Your task to perform on an android device: Clear the cart on amazon.com. Search for duracell triple a on amazon.com, select the first entry, and add it to the cart. Image 0: 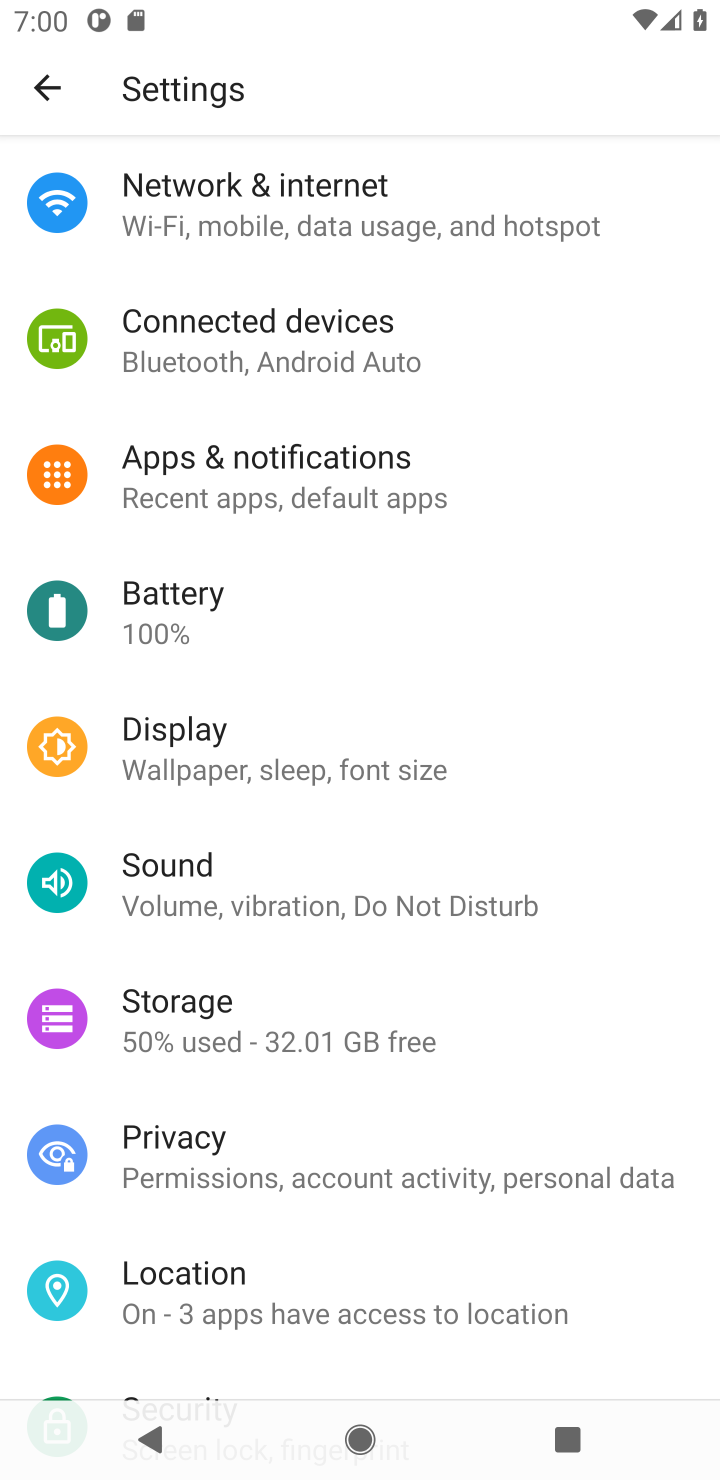
Step 0: press home button
Your task to perform on an android device: Clear the cart on amazon.com. Search for duracell triple a on amazon.com, select the first entry, and add it to the cart. Image 1: 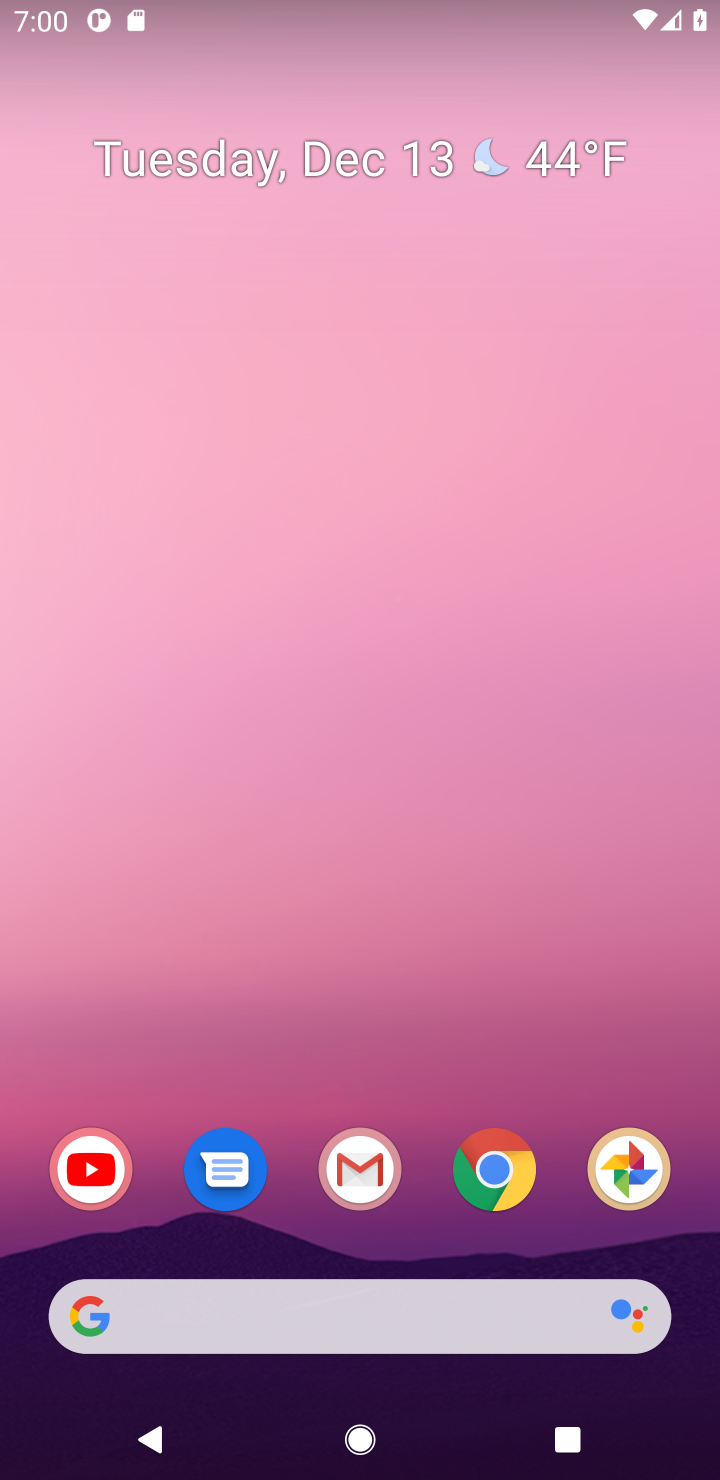
Step 1: click (479, 1186)
Your task to perform on an android device: Clear the cart on amazon.com. Search for duracell triple a on amazon.com, select the first entry, and add it to the cart. Image 2: 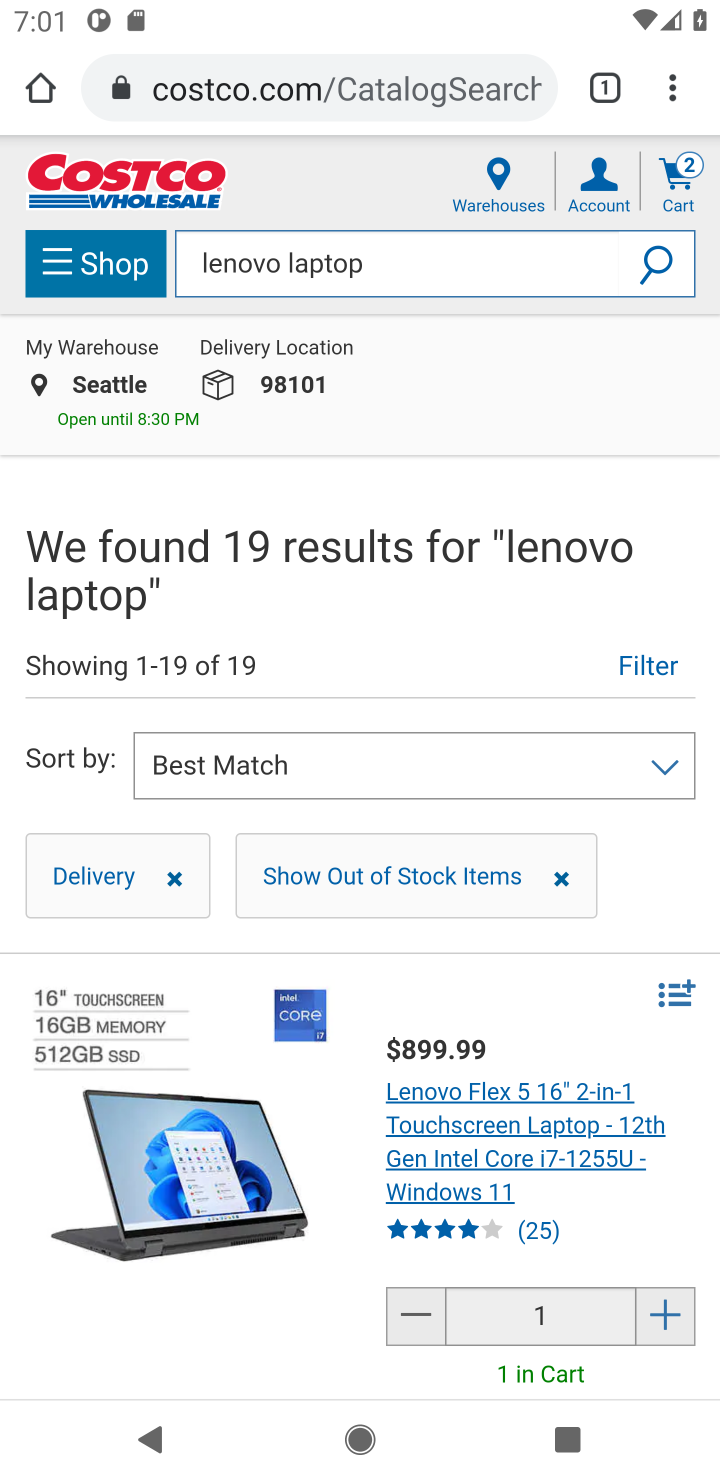
Step 2: click (360, 68)
Your task to perform on an android device: Clear the cart on amazon.com. Search for duracell triple a on amazon.com, select the first entry, and add it to the cart. Image 3: 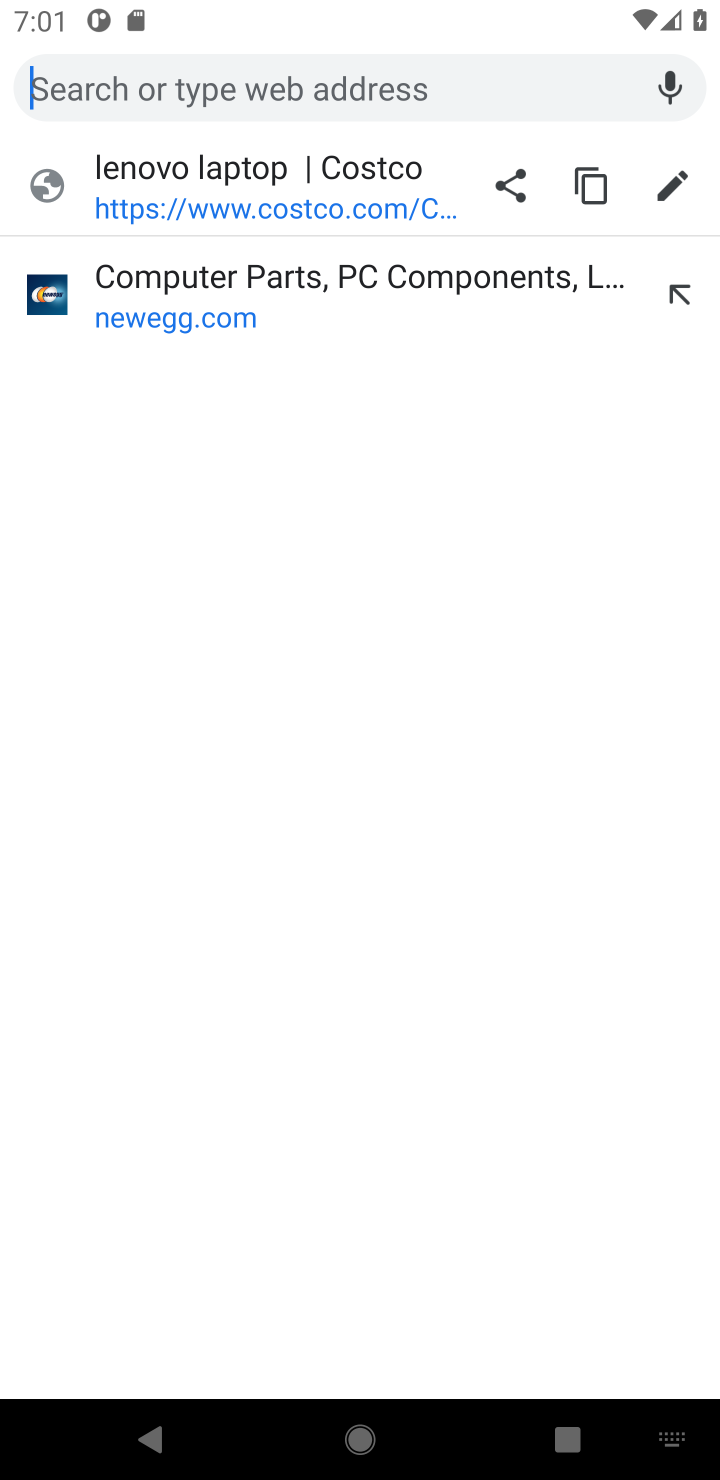
Step 3: type "amazon.com"
Your task to perform on an android device: Clear the cart on amazon.com. Search for duracell triple a on amazon.com, select the first entry, and add it to the cart. Image 4: 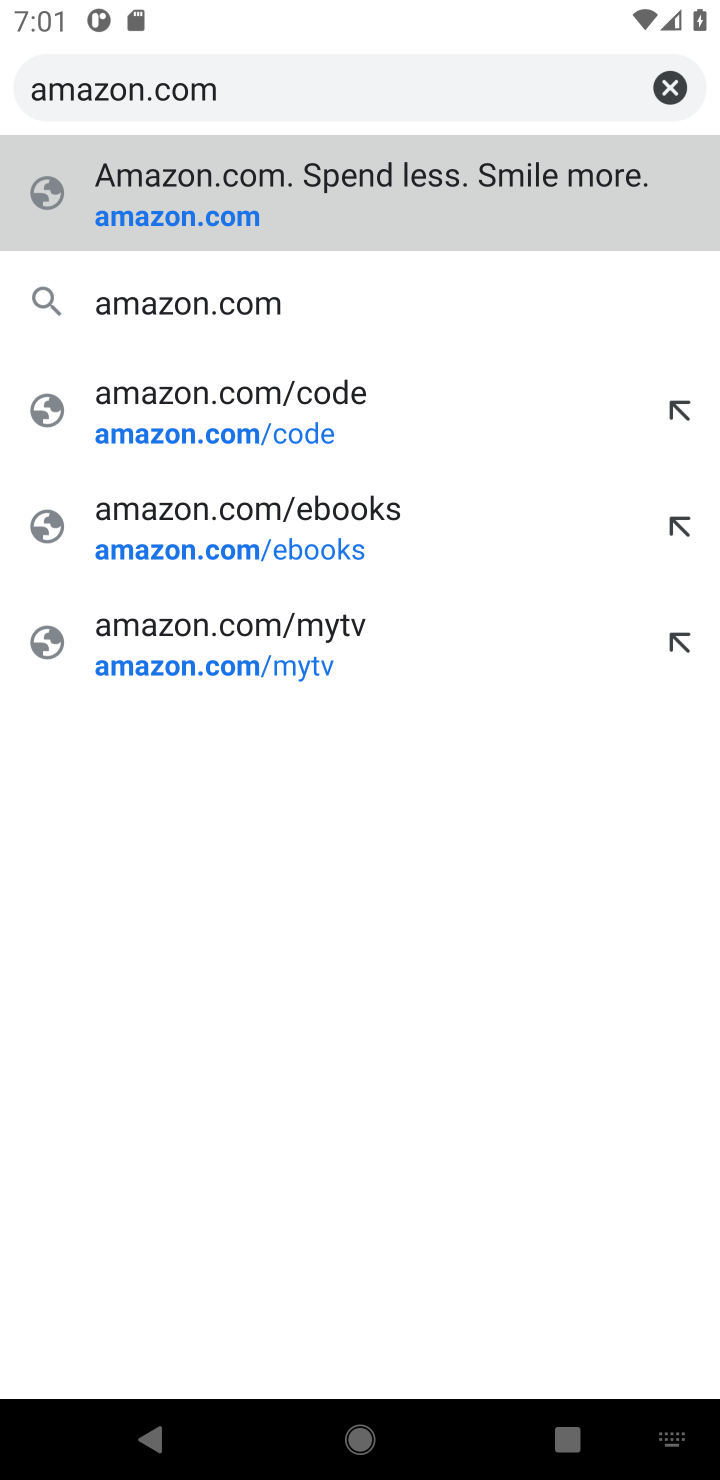
Step 4: click (250, 182)
Your task to perform on an android device: Clear the cart on amazon.com. Search for duracell triple a on amazon.com, select the first entry, and add it to the cart. Image 5: 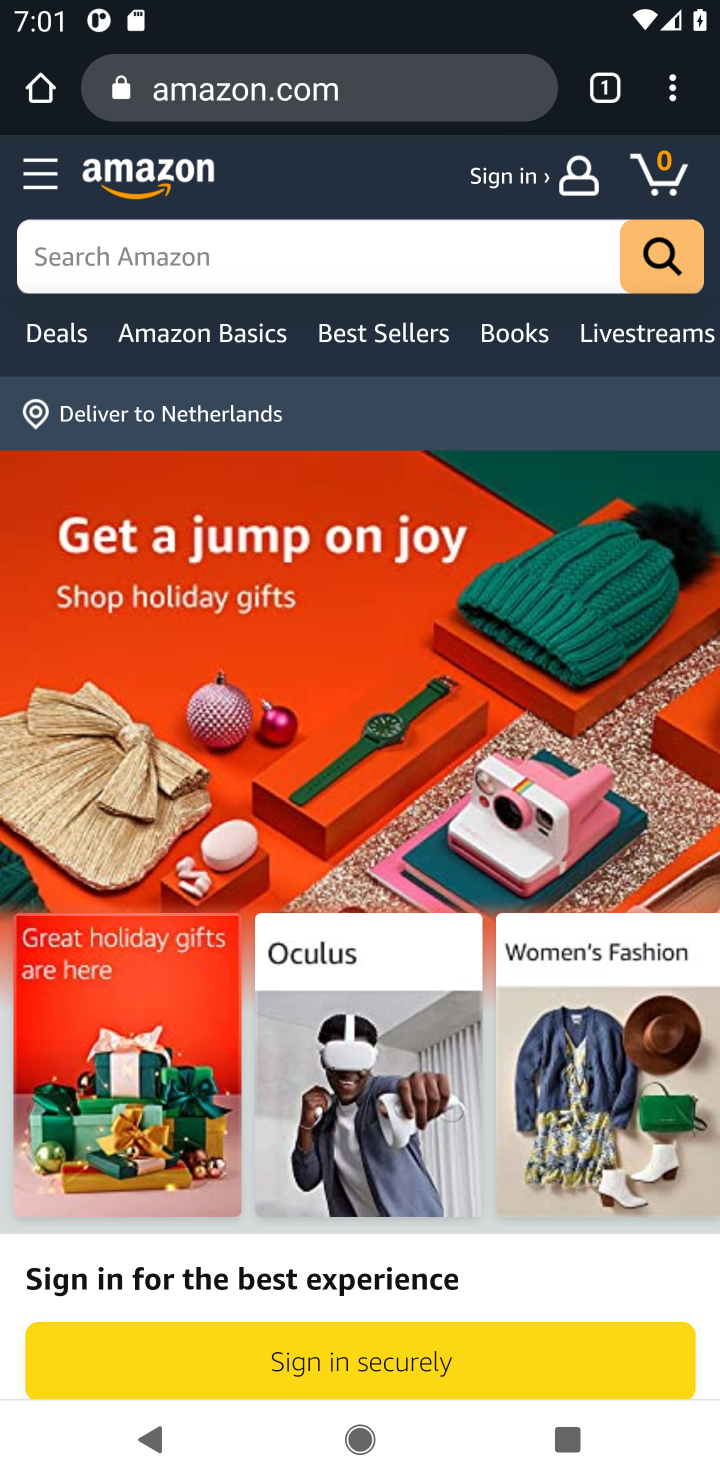
Step 5: click (287, 253)
Your task to perform on an android device: Clear the cart on amazon.com. Search for duracell triple a on amazon.com, select the first entry, and add it to the cart. Image 6: 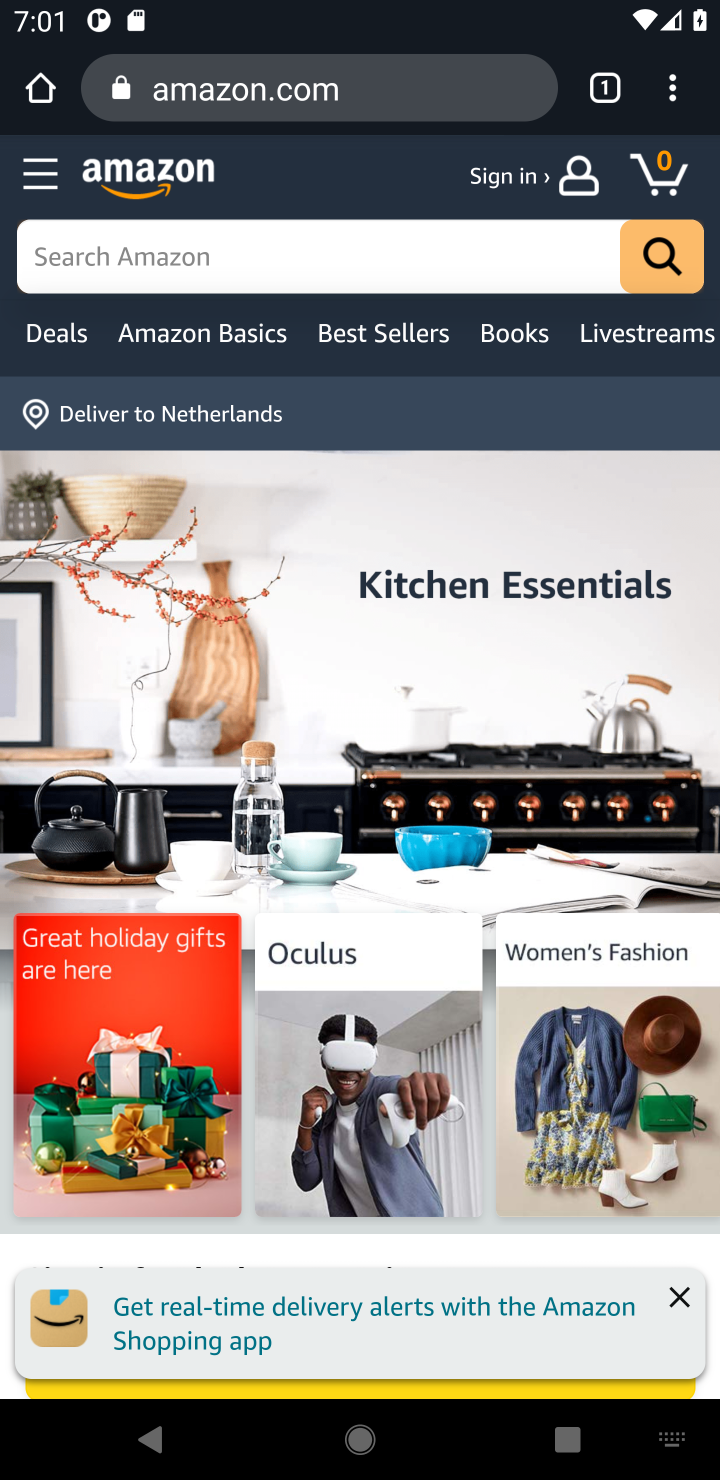
Step 6: type "duracell triple a"
Your task to perform on an android device: Clear the cart on amazon.com. Search for duracell triple a on amazon.com, select the first entry, and add it to the cart. Image 7: 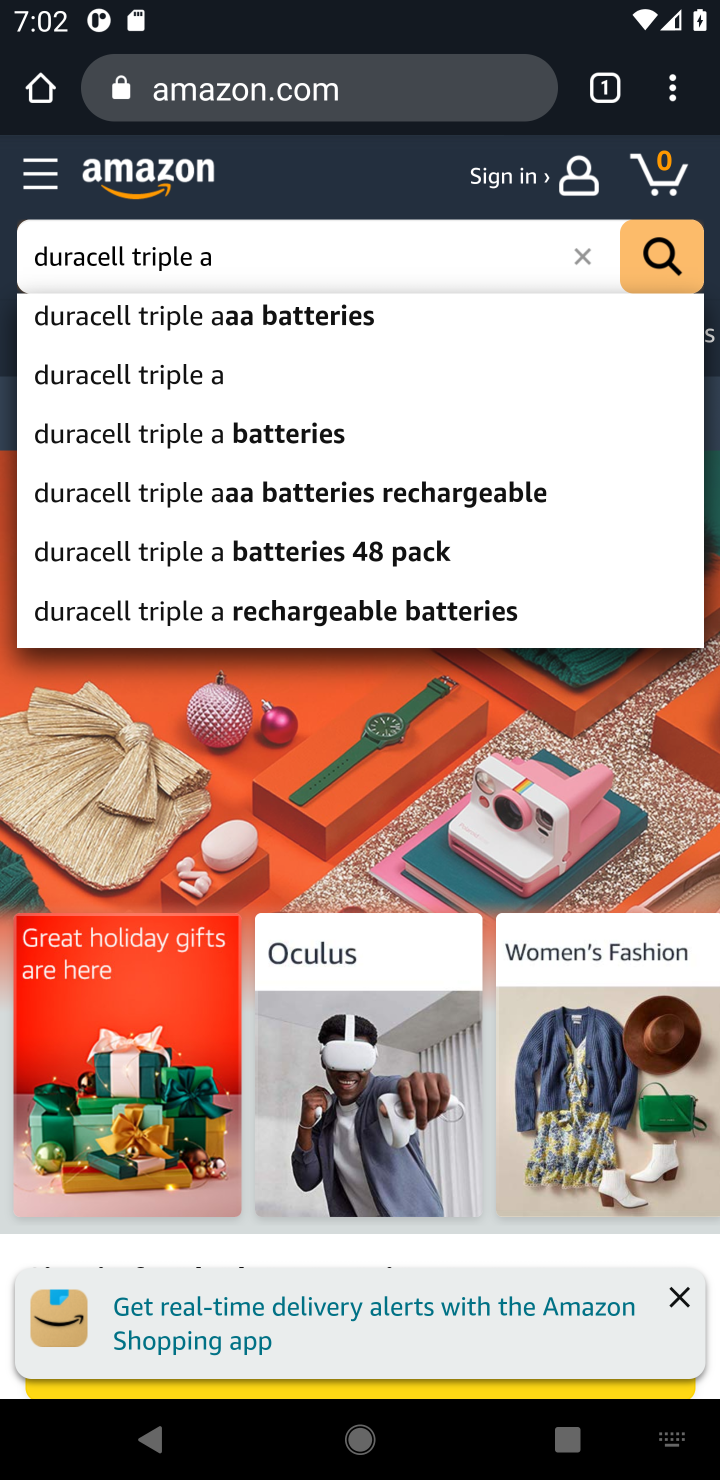
Step 7: click (265, 330)
Your task to perform on an android device: Clear the cart on amazon.com. Search for duracell triple a on amazon.com, select the first entry, and add it to the cart. Image 8: 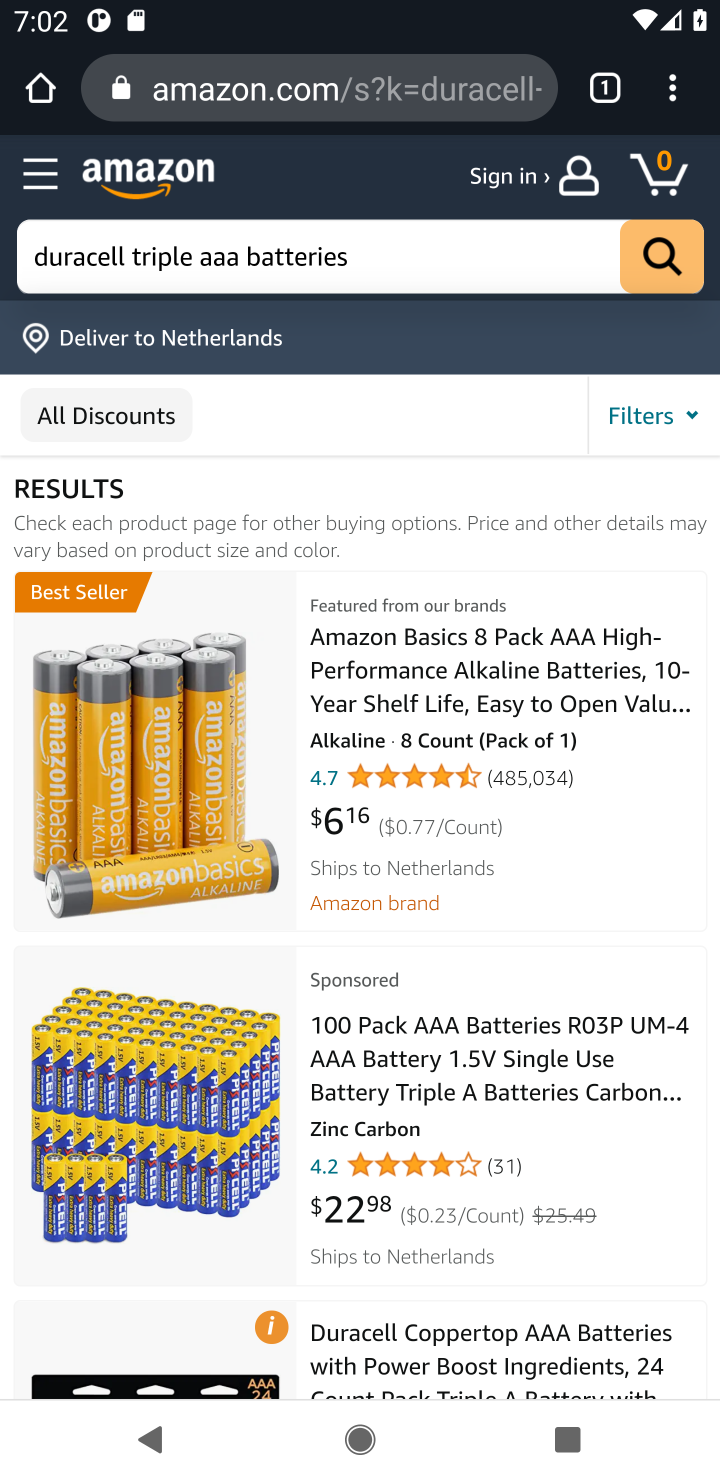
Step 8: click (254, 703)
Your task to perform on an android device: Clear the cart on amazon.com. Search for duracell triple a on amazon.com, select the first entry, and add it to the cart. Image 9: 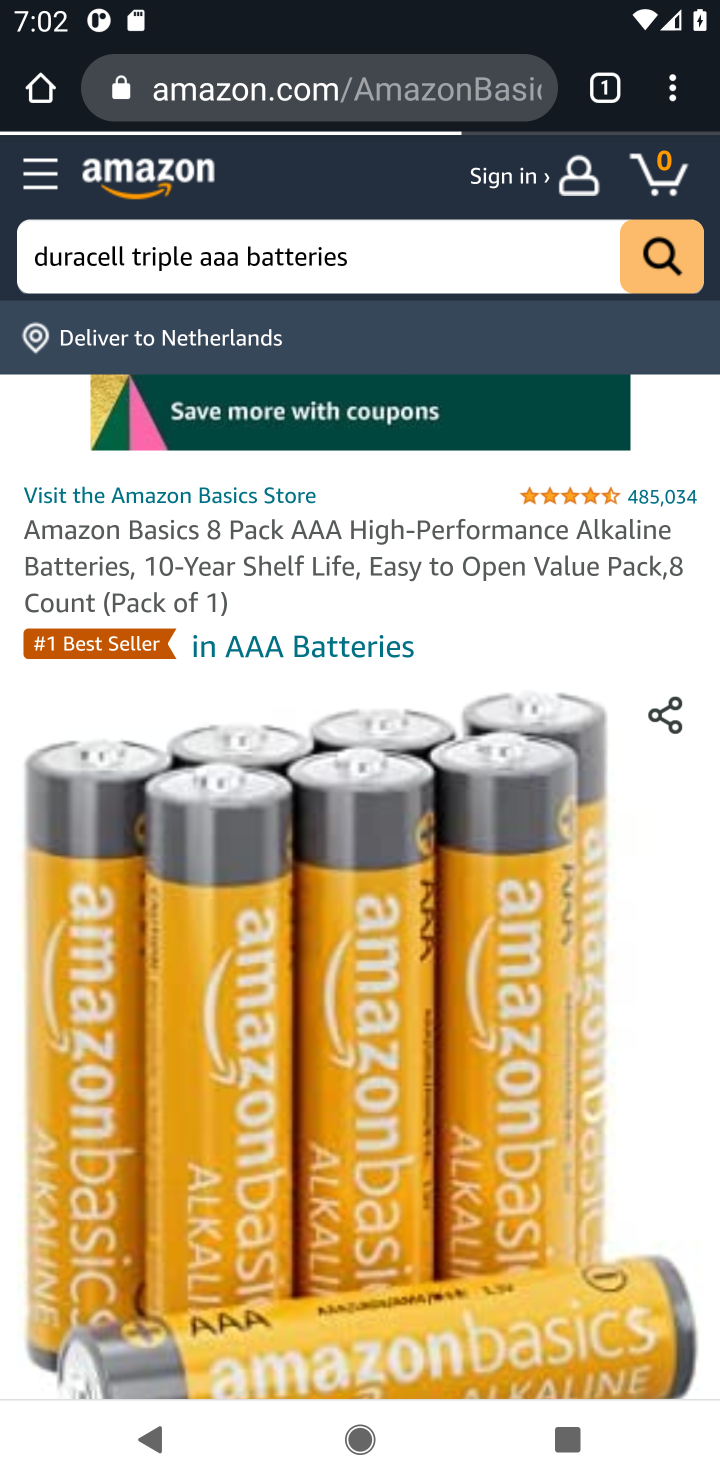
Step 9: drag from (496, 1124) to (479, 590)
Your task to perform on an android device: Clear the cart on amazon.com. Search for duracell triple a on amazon.com, select the first entry, and add it to the cart. Image 10: 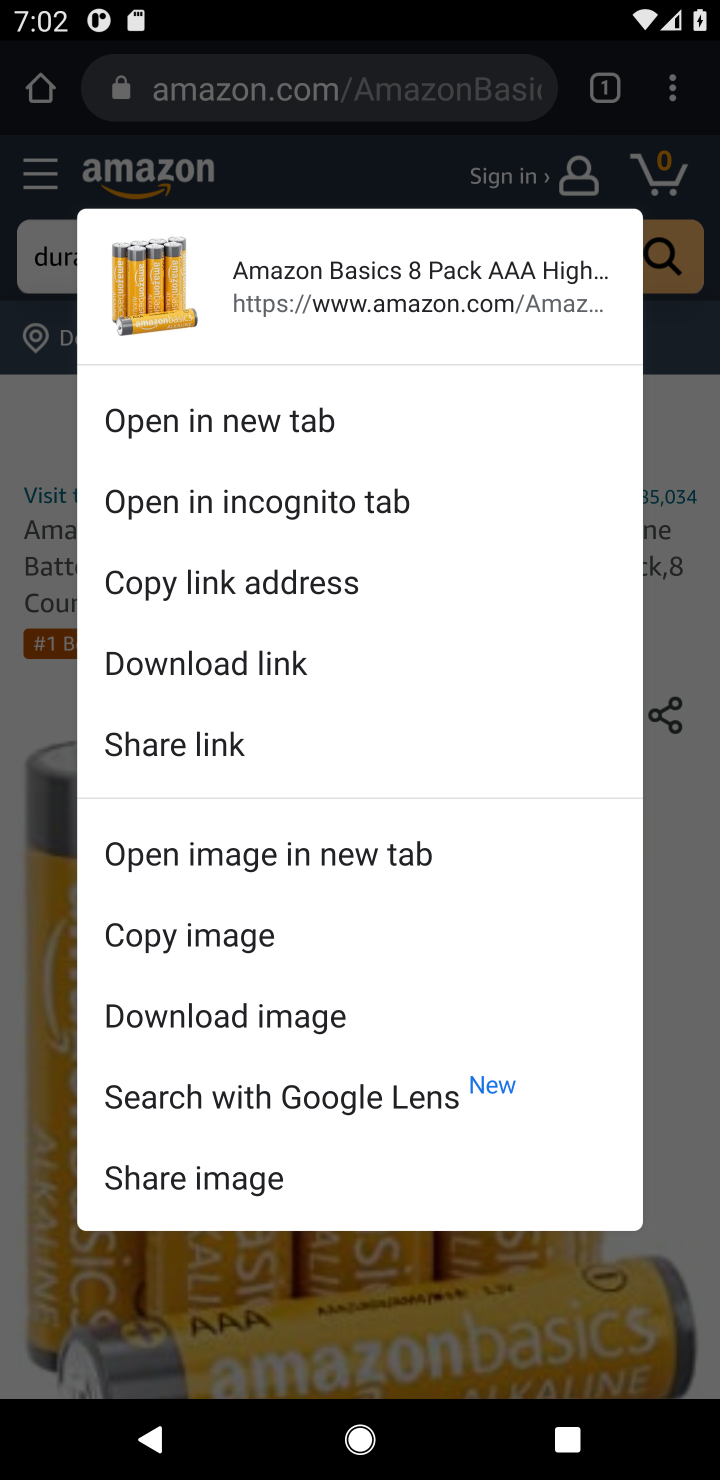
Step 10: click (594, 1367)
Your task to perform on an android device: Clear the cart on amazon.com. Search for duracell triple a on amazon.com, select the first entry, and add it to the cart. Image 11: 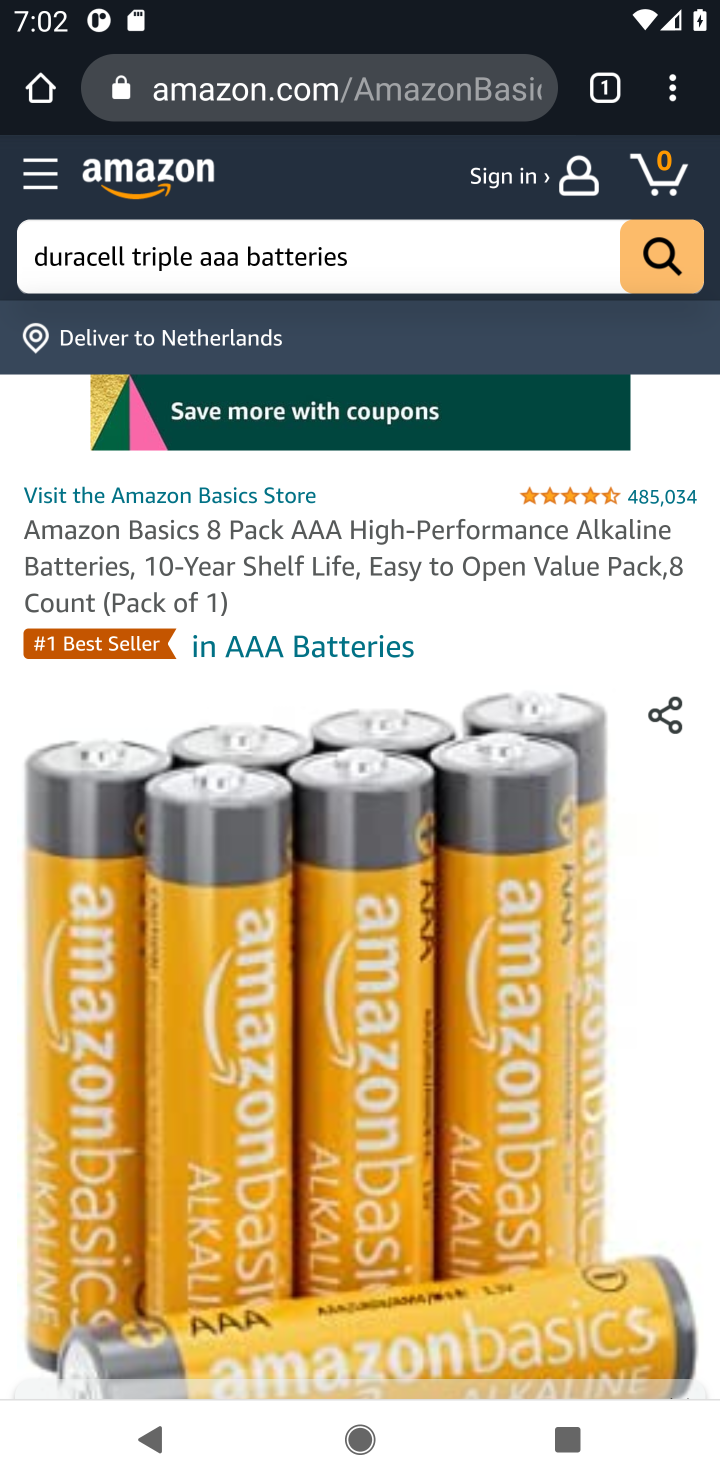
Step 11: drag from (519, 1288) to (488, 758)
Your task to perform on an android device: Clear the cart on amazon.com. Search for duracell triple a on amazon.com, select the first entry, and add it to the cart. Image 12: 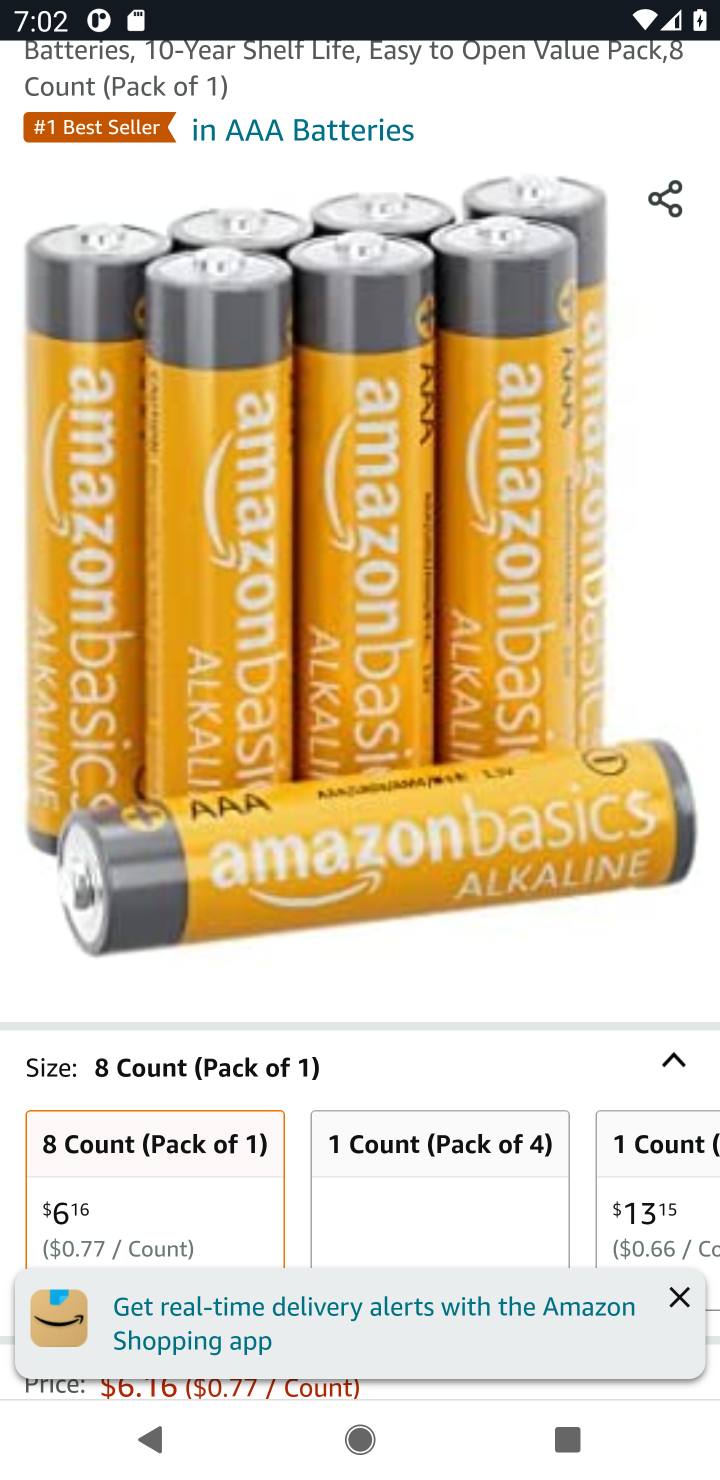
Step 12: click (667, 1313)
Your task to perform on an android device: Clear the cart on amazon.com. Search for duracell triple a on amazon.com, select the first entry, and add it to the cart. Image 13: 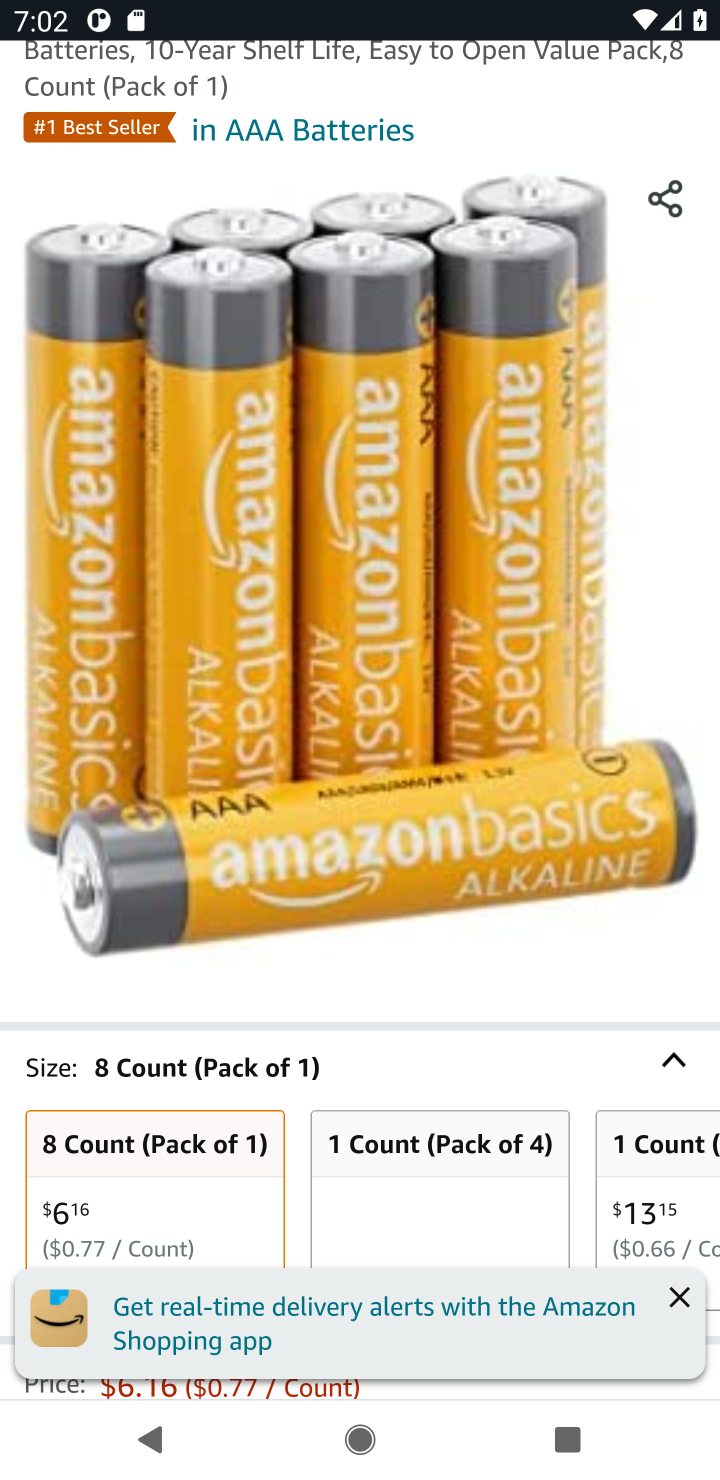
Step 13: drag from (493, 1048) to (478, 709)
Your task to perform on an android device: Clear the cart on amazon.com. Search for duracell triple a on amazon.com, select the first entry, and add it to the cart. Image 14: 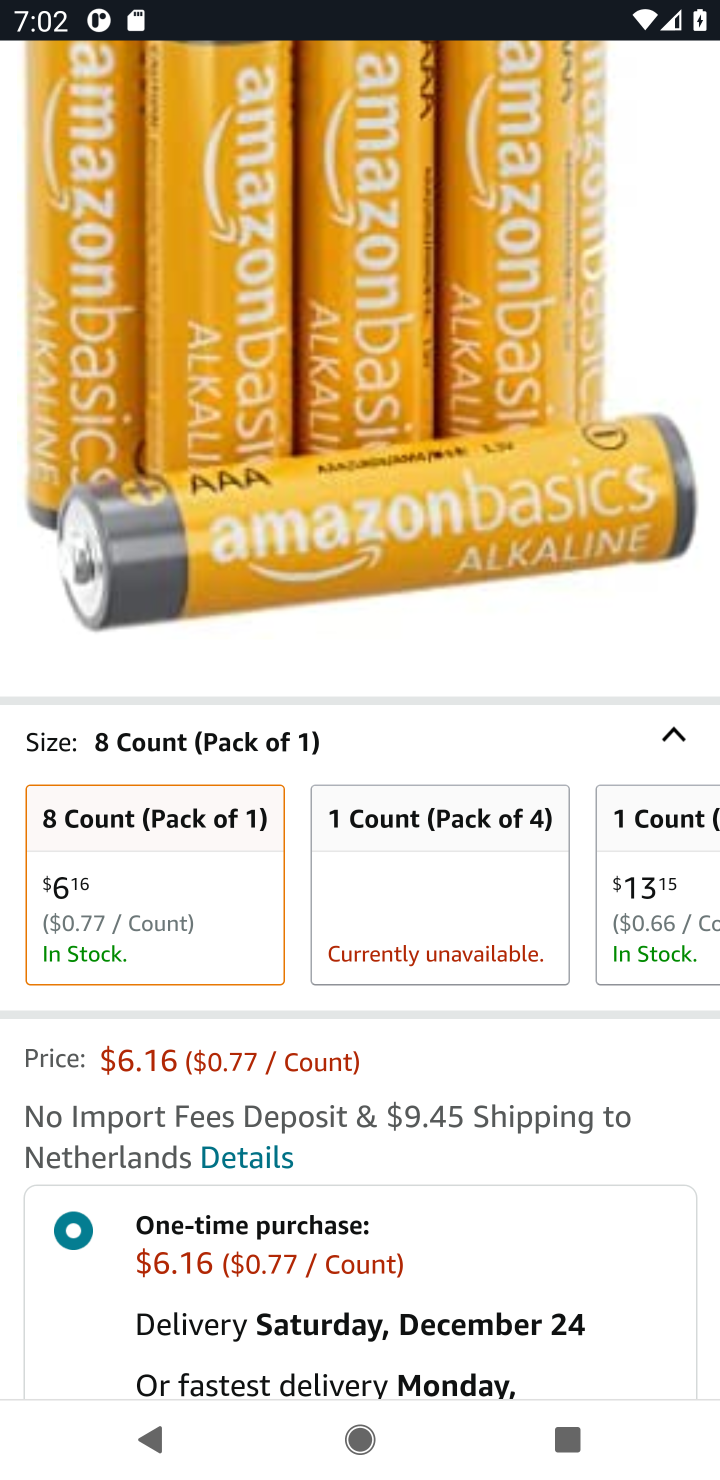
Step 14: drag from (575, 1212) to (578, 1052)
Your task to perform on an android device: Clear the cart on amazon.com. Search for duracell triple a on amazon.com, select the first entry, and add it to the cart. Image 15: 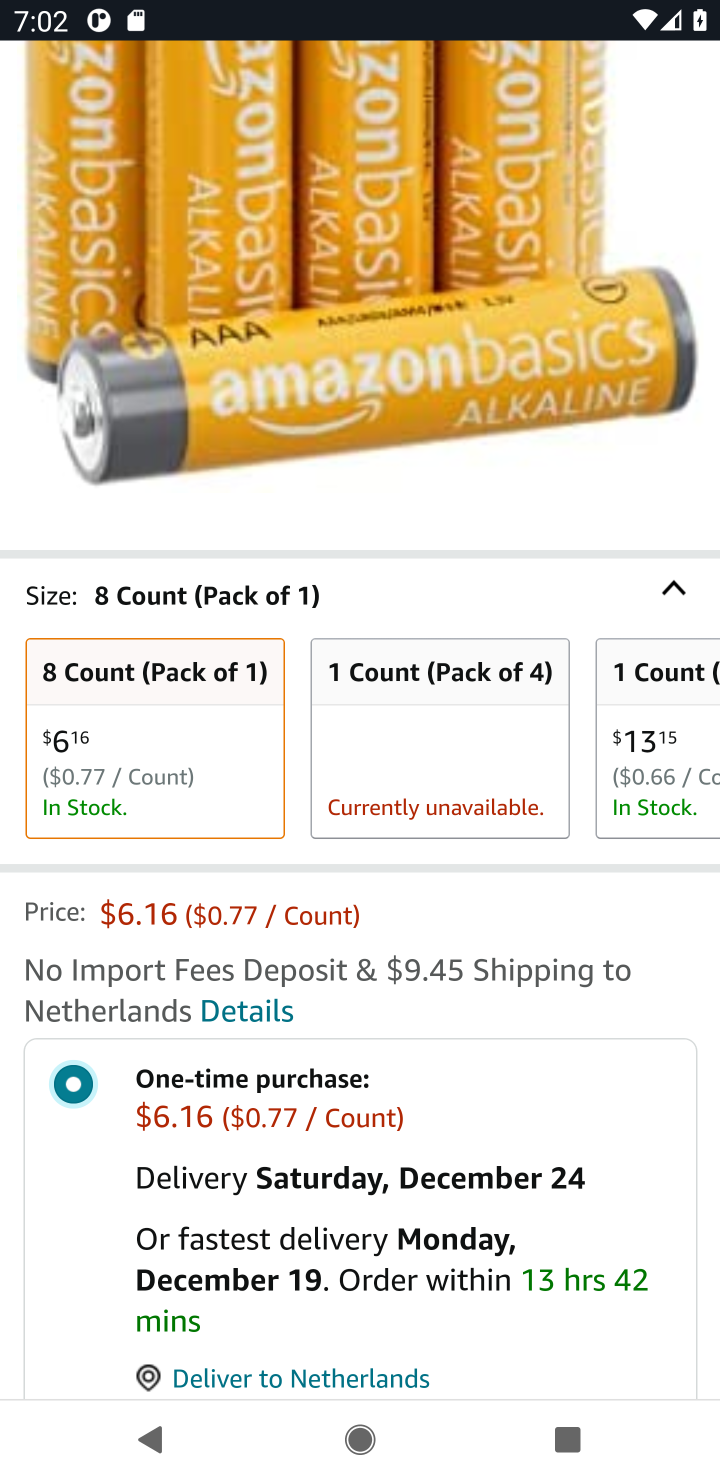
Step 15: drag from (560, 1311) to (543, 855)
Your task to perform on an android device: Clear the cart on amazon.com. Search for duracell triple a on amazon.com, select the first entry, and add it to the cart. Image 16: 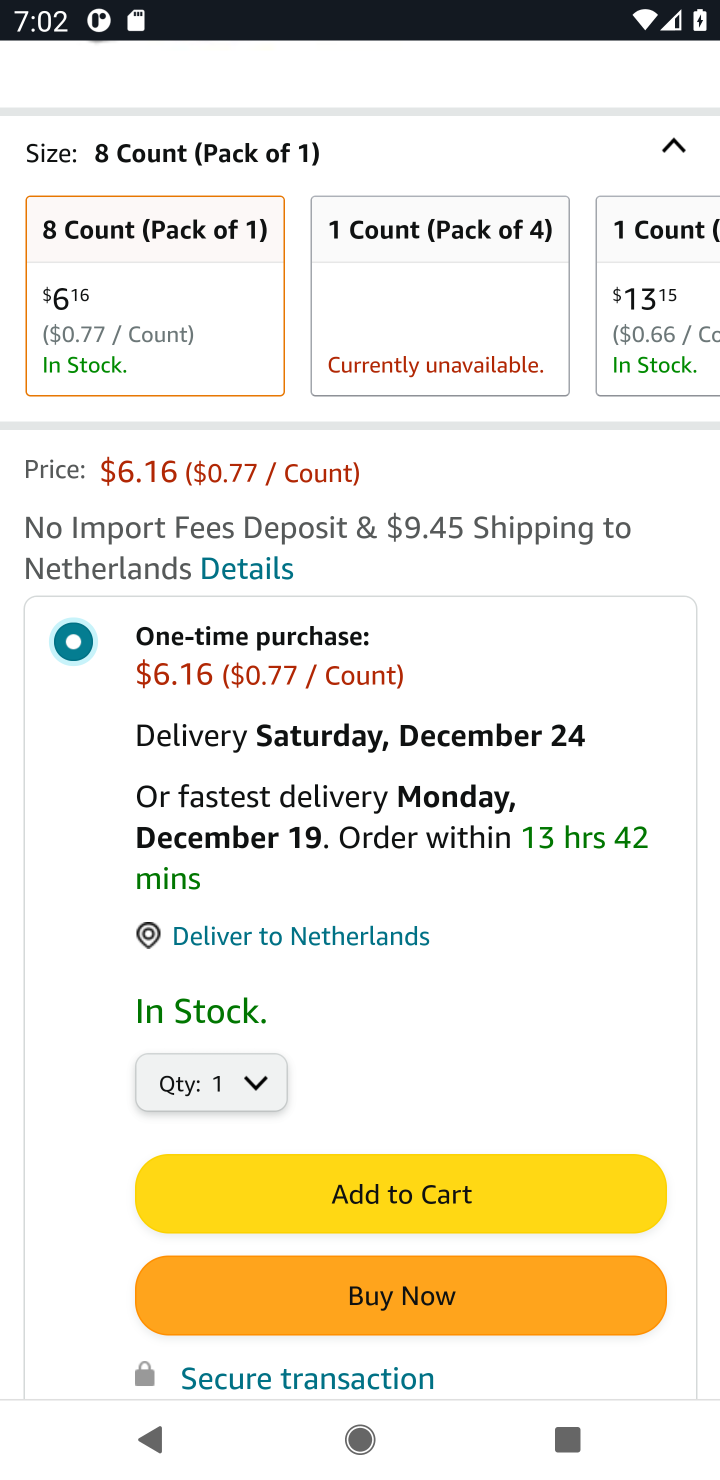
Step 16: click (537, 1182)
Your task to perform on an android device: Clear the cart on amazon.com. Search for duracell triple a on amazon.com, select the first entry, and add it to the cart. Image 17: 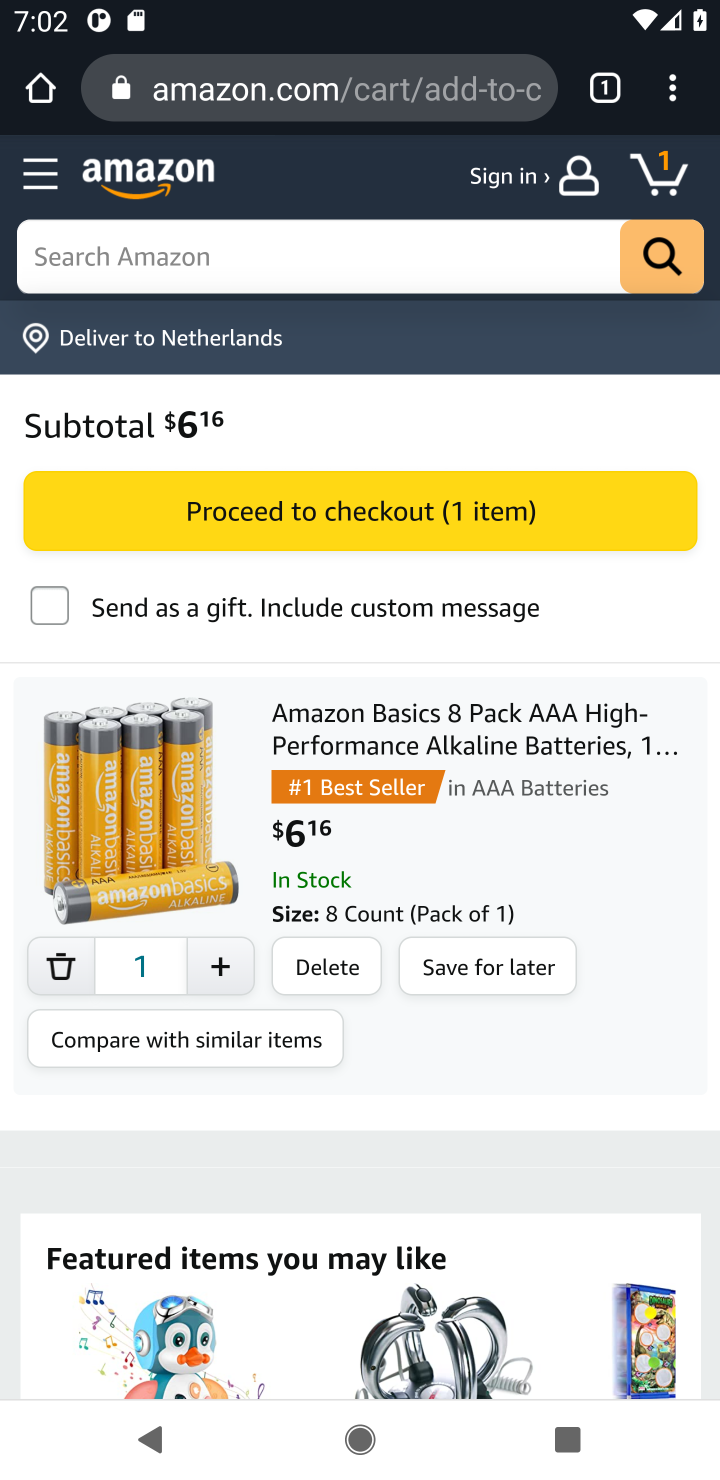
Step 17: task complete